Your task to perform on an android device: toggle javascript in the chrome app Image 0: 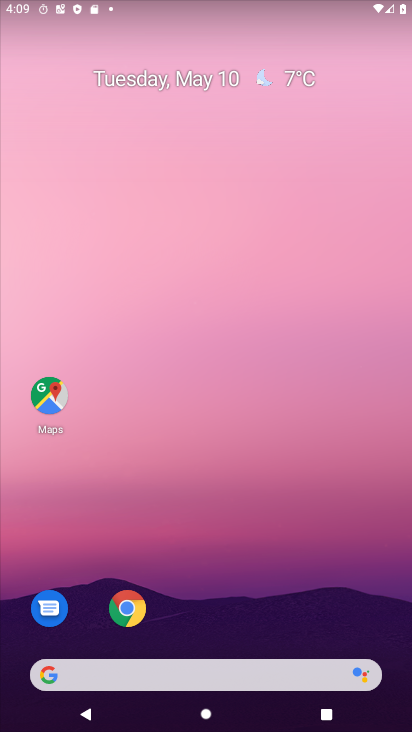
Step 0: click (125, 610)
Your task to perform on an android device: toggle javascript in the chrome app Image 1: 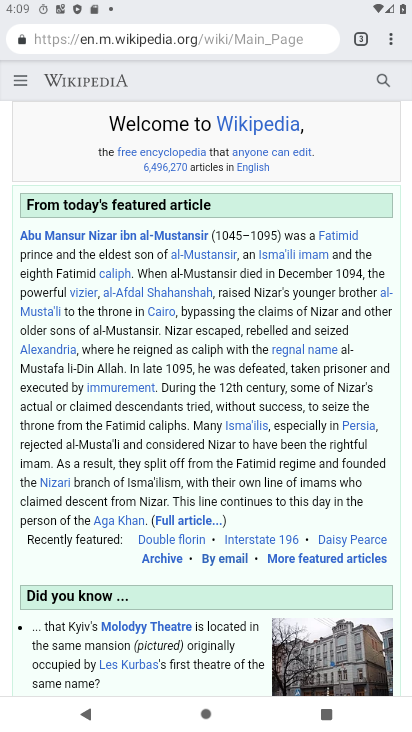
Step 1: drag from (393, 36) to (248, 470)
Your task to perform on an android device: toggle javascript in the chrome app Image 2: 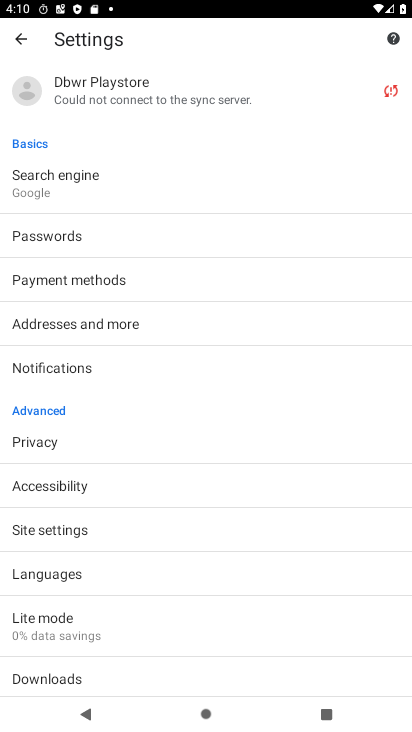
Step 2: click (77, 526)
Your task to perform on an android device: toggle javascript in the chrome app Image 3: 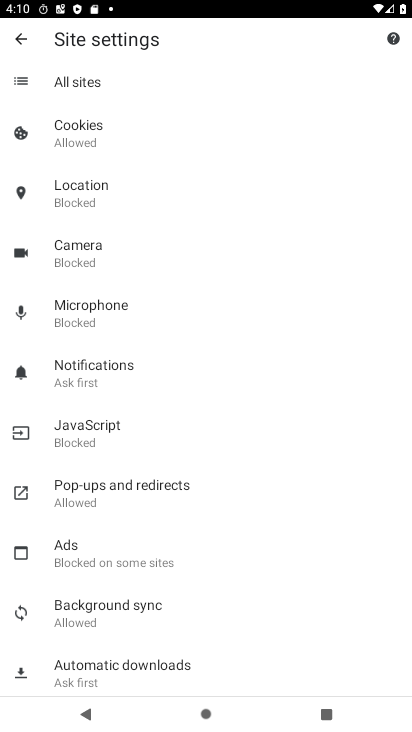
Step 3: click (84, 440)
Your task to perform on an android device: toggle javascript in the chrome app Image 4: 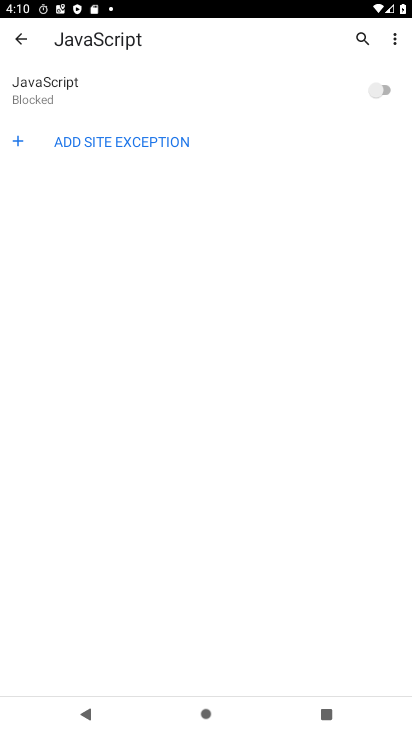
Step 4: click (387, 91)
Your task to perform on an android device: toggle javascript in the chrome app Image 5: 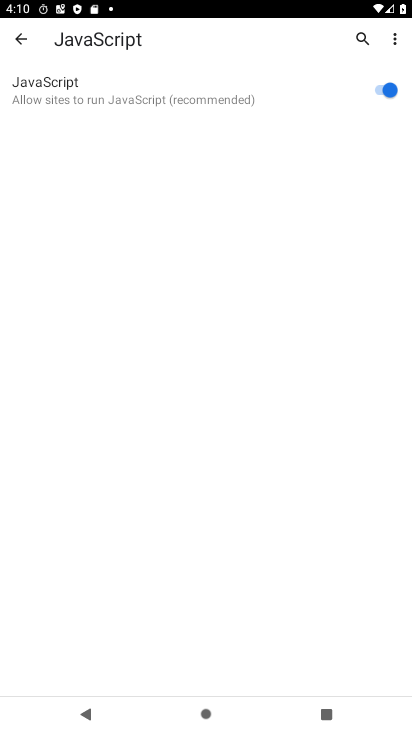
Step 5: task complete